Your task to perform on an android device: Open Google Chrome and click the shortcut for Amazon.com Image 0: 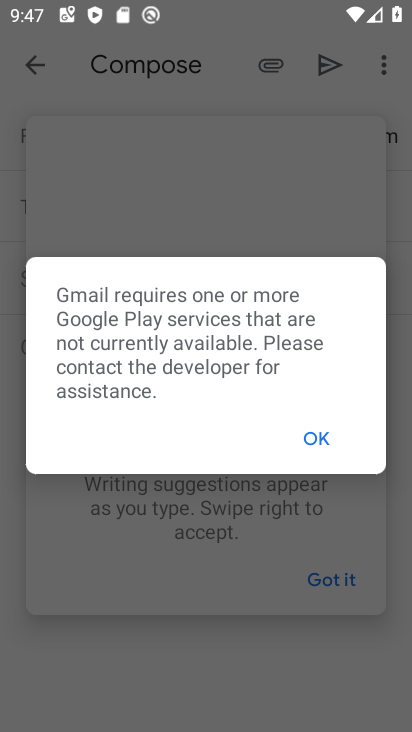
Step 0: press home button
Your task to perform on an android device: Open Google Chrome and click the shortcut for Amazon.com Image 1: 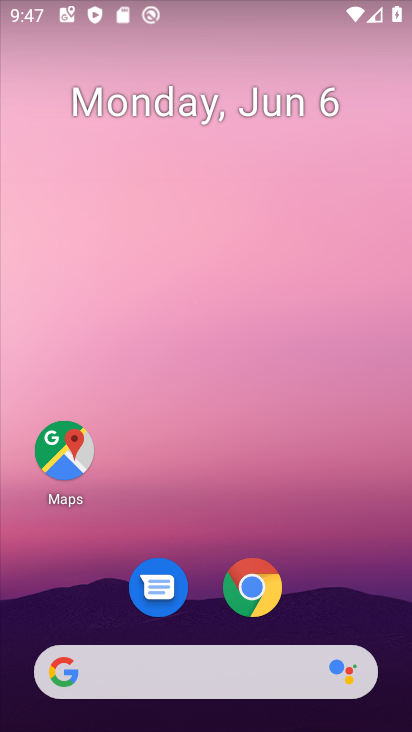
Step 1: click (235, 562)
Your task to perform on an android device: Open Google Chrome and click the shortcut for Amazon.com Image 2: 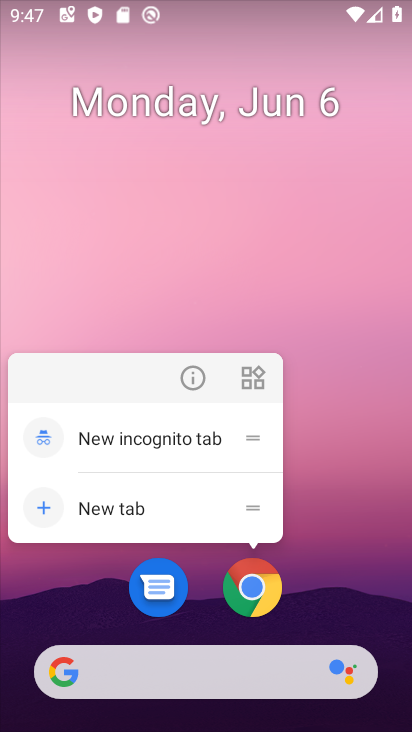
Step 2: click (273, 599)
Your task to perform on an android device: Open Google Chrome and click the shortcut for Amazon.com Image 3: 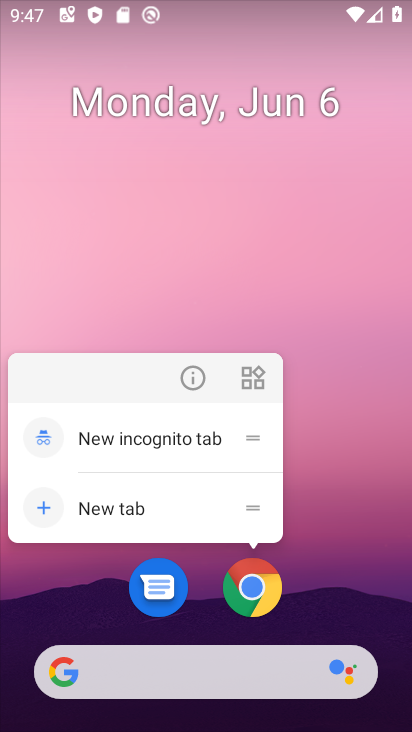
Step 3: click (273, 599)
Your task to perform on an android device: Open Google Chrome and click the shortcut for Amazon.com Image 4: 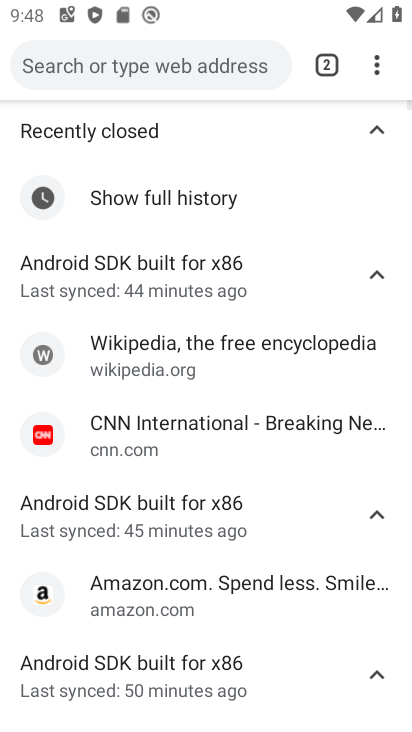
Step 4: click (371, 75)
Your task to perform on an android device: Open Google Chrome and click the shortcut for Amazon.com Image 5: 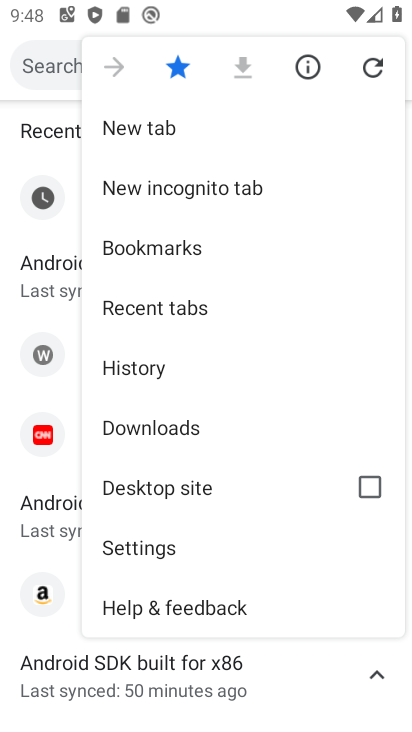
Step 5: click (301, 124)
Your task to perform on an android device: Open Google Chrome and click the shortcut for Amazon.com Image 6: 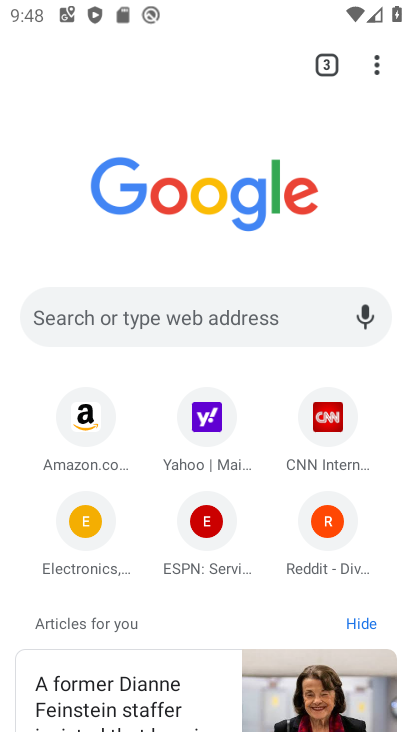
Step 6: click (92, 415)
Your task to perform on an android device: Open Google Chrome and click the shortcut for Amazon.com Image 7: 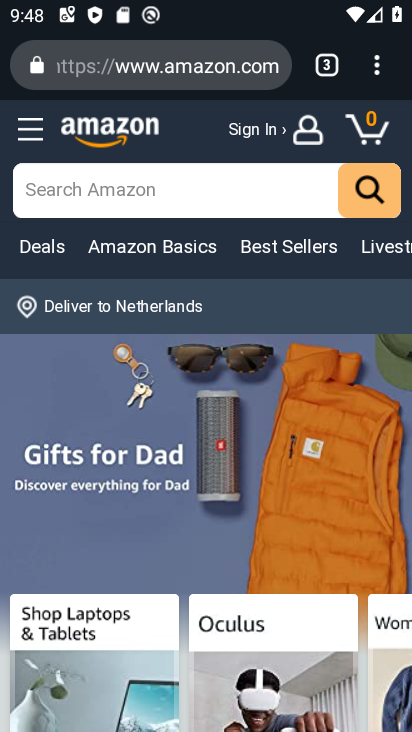
Step 7: task complete